Your task to perform on an android device: turn on priority inbox in the gmail app Image 0: 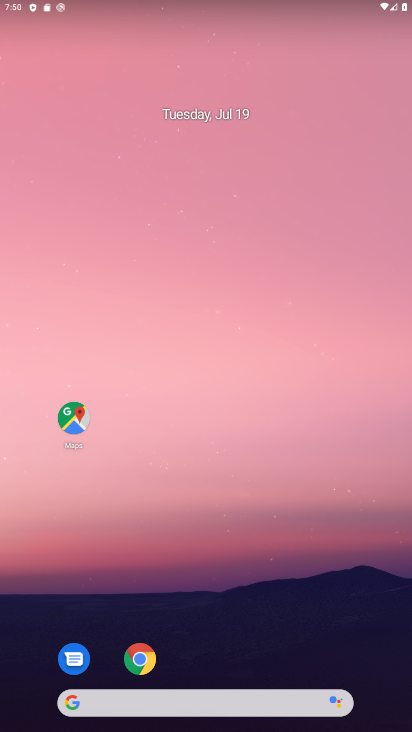
Step 0: drag from (257, 657) to (319, 118)
Your task to perform on an android device: turn on priority inbox in the gmail app Image 1: 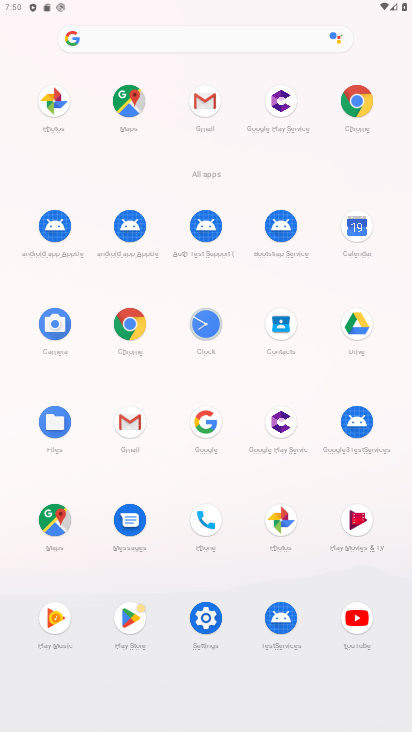
Step 1: click (209, 98)
Your task to perform on an android device: turn on priority inbox in the gmail app Image 2: 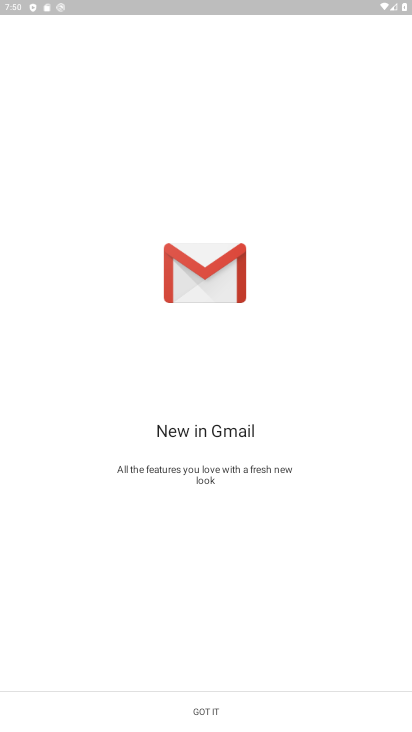
Step 2: click (203, 712)
Your task to perform on an android device: turn on priority inbox in the gmail app Image 3: 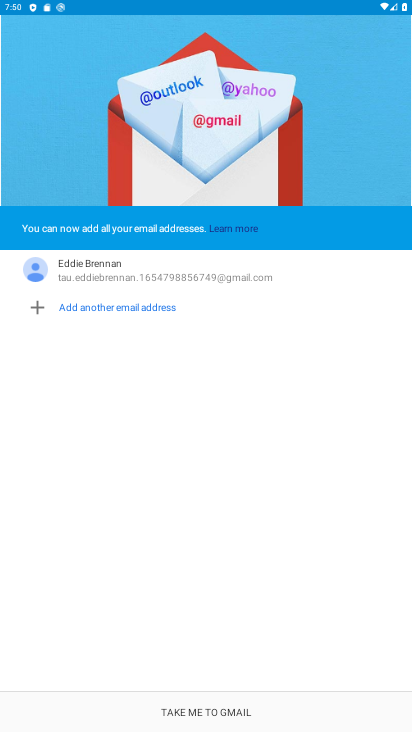
Step 3: click (203, 712)
Your task to perform on an android device: turn on priority inbox in the gmail app Image 4: 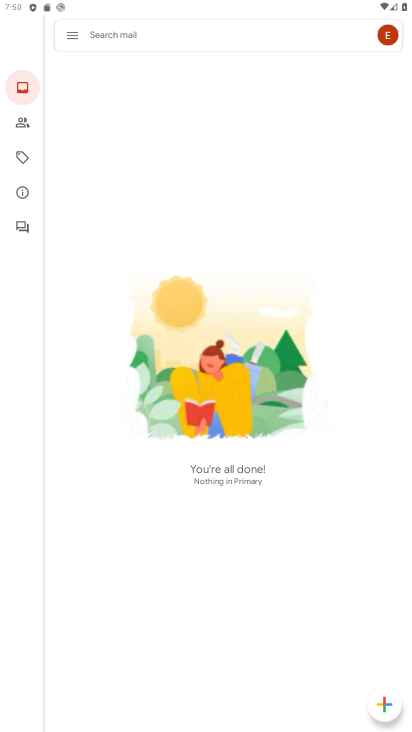
Step 4: click (74, 38)
Your task to perform on an android device: turn on priority inbox in the gmail app Image 5: 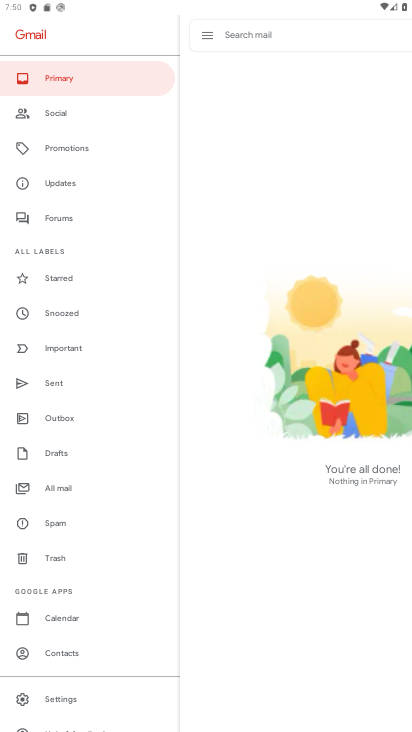
Step 5: drag from (81, 621) to (116, 269)
Your task to perform on an android device: turn on priority inbox in the gmail app Image 6: 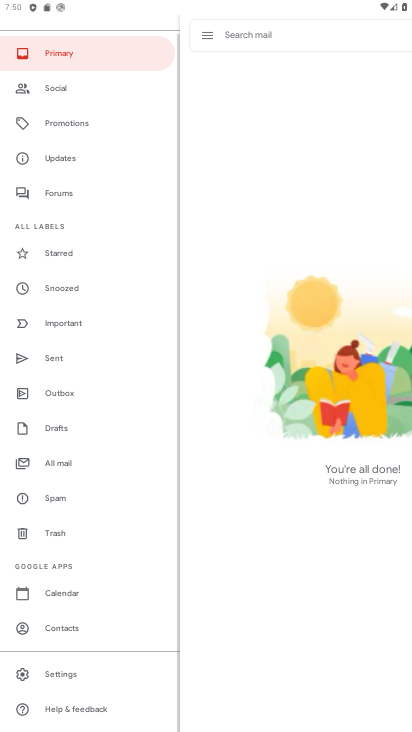
Step 6: click (51, 674)
Your task to perform on an android device: turn on priority inbox in the gmail app Image 7: 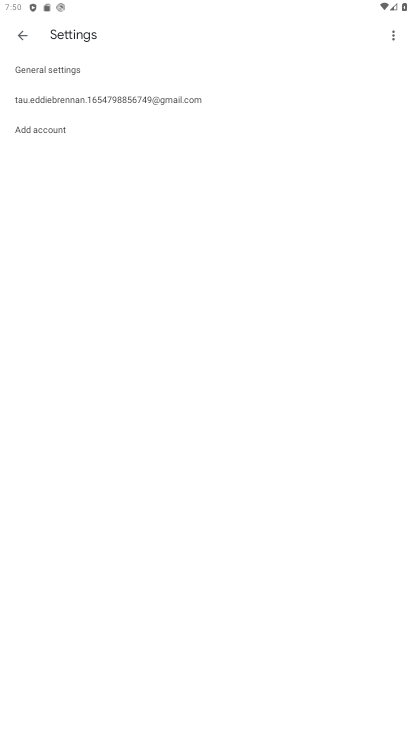
Step 7: click (149, 96)
Your task to perform on an android device: turn on priority inbox in the gmail app Image 8: 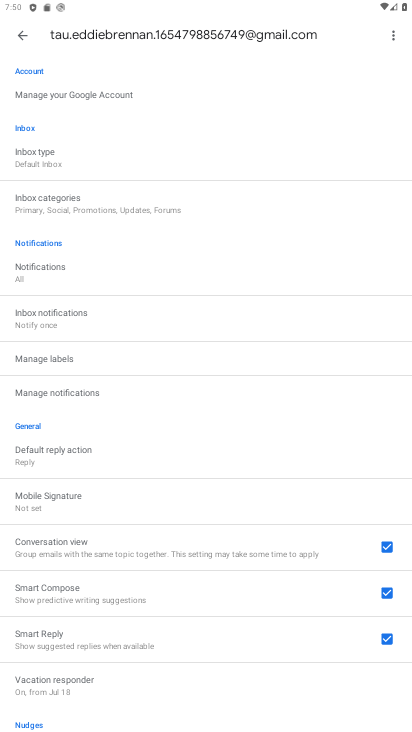
Step 8: drag from (151, 629) to (221, 362)
Your task to perform on an android device: turn on priority inbox in the gmail app Image 9: 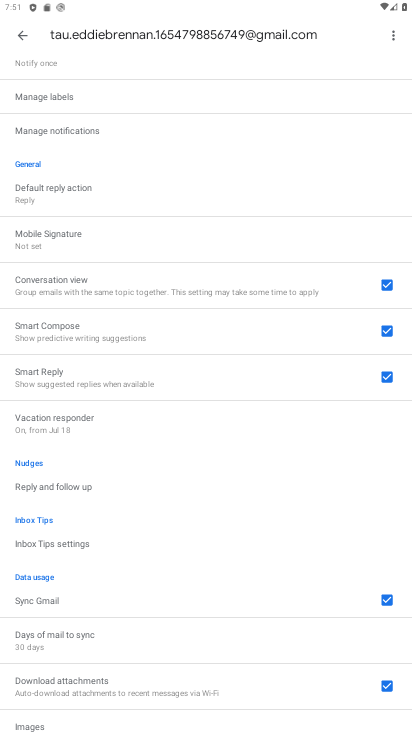
Step 9: drag from (117, 505) to (160, 221)
Your task to perform on an android device: turn on priority inbox in the gmail app Image 10: 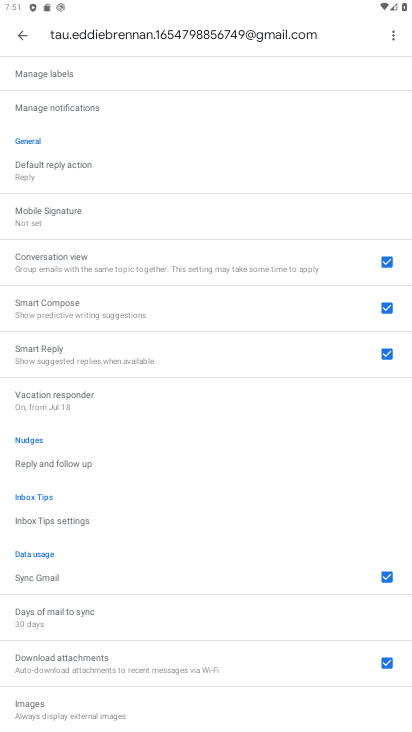
Step 10: drag from (170, 90) to (101, 516)
Your task to perform on an android device: turn on priority inbox in the gmail app Image 11: 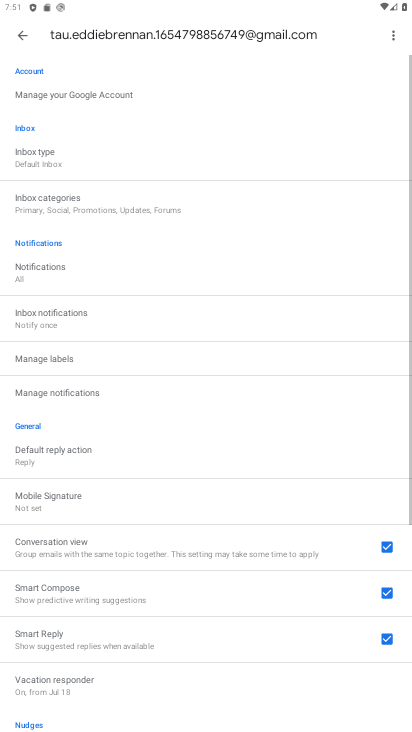
Step 11: click (22, 164)
Your task to perform on an android device: turn on priority inbox in the gmail app Image 12: 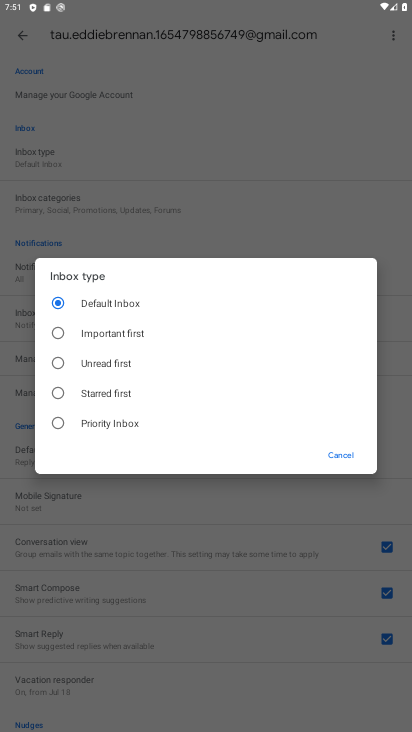
Step 12: click (95, 422)
Your task to perform on an android device: turn on priority inbox in the gmail app Image 13: 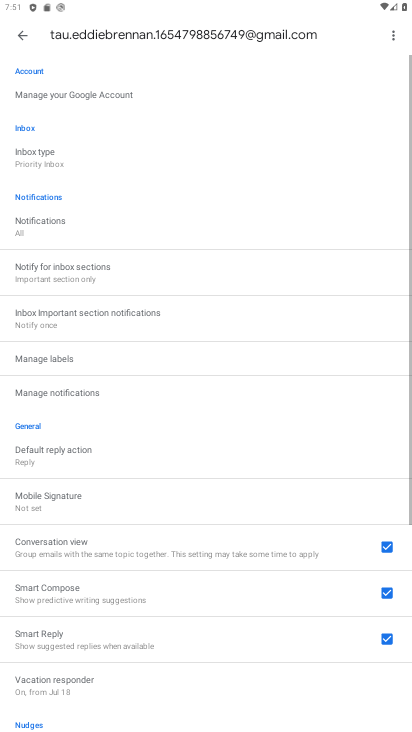
Step 13: task complete